Your task to perform on an android device: What is the news today? Image 0: 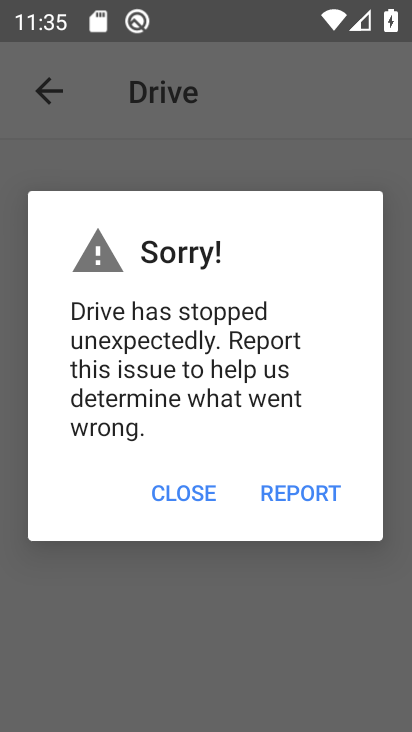
Step 0: press home button
Your task to perform on an android device: What is the news today? Image 1: 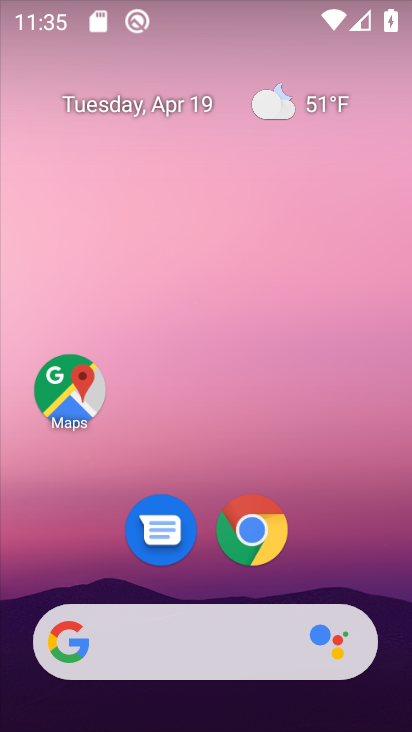
Step 1: drag from (161, 598) to (342, 38)
Your task to perform on an android device: What is the news today? Image 2: 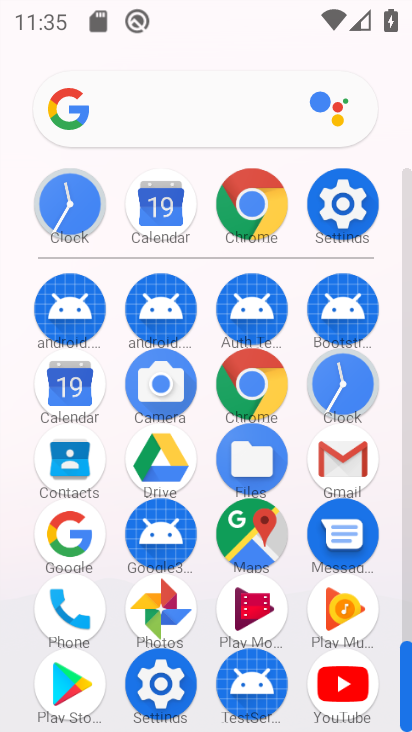
Step 2: click (71, 543)
Your task to perform on an android device: What is the news today? Image 3: 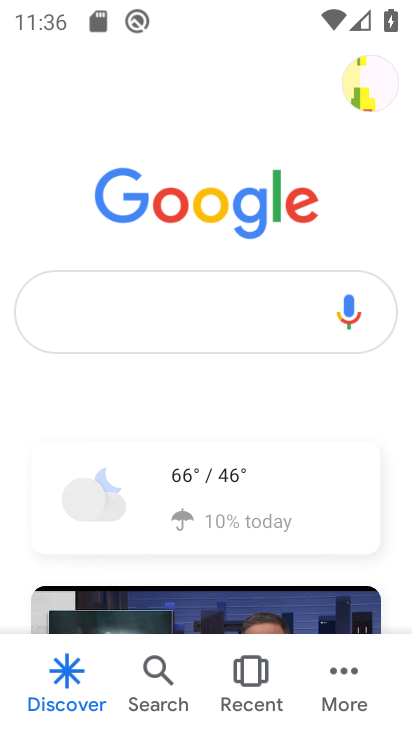
Step 3: click (154, 324)
Your task to perform on an android device: What is the news today? Image 4: 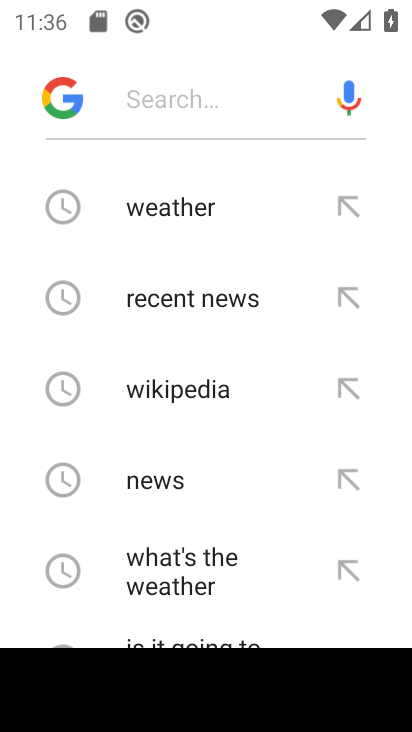
Step 4: type "news today"
Your task to perform on an android device: What is the news today? Image 5: 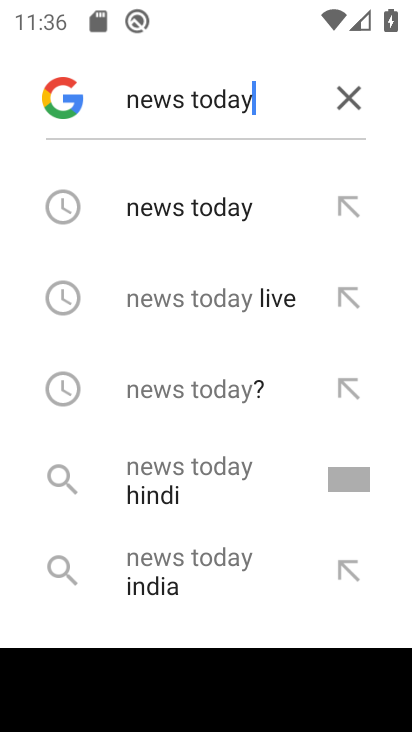
Step 5: click (186, 211)
Your task to perform on an android device: What is the news today? Image 6: 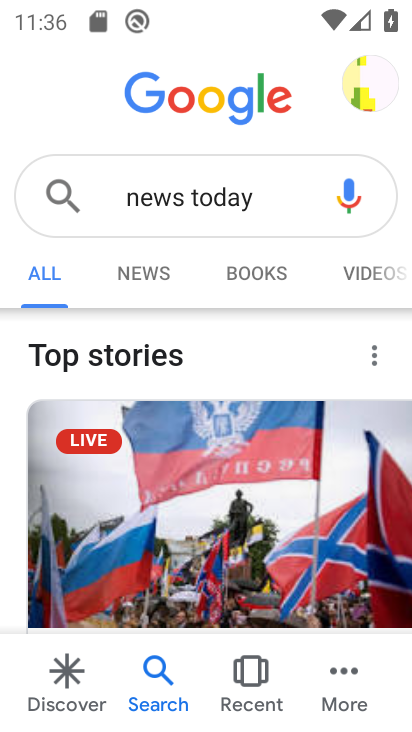
Step 6: task complete